Your task to perform on an android device: Open battery settings Image 0: 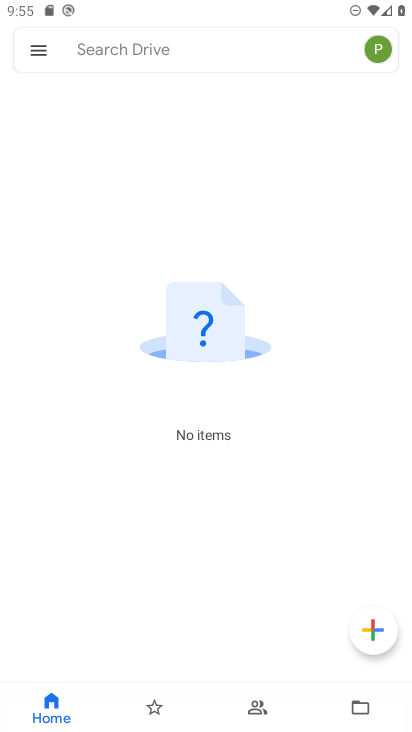
Step 0: press home button
Your task to perform on an android device: Open battery settings Image 1: 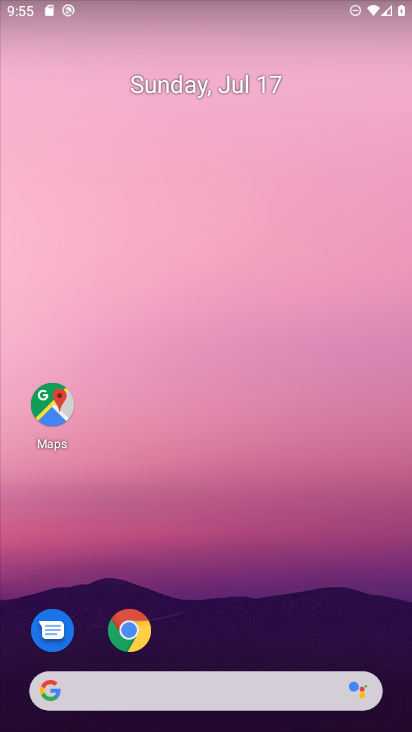
Step 1: drag from (289, 682) to (268, 415)
Your task to perform on an android device: Open battery settings Image 2: 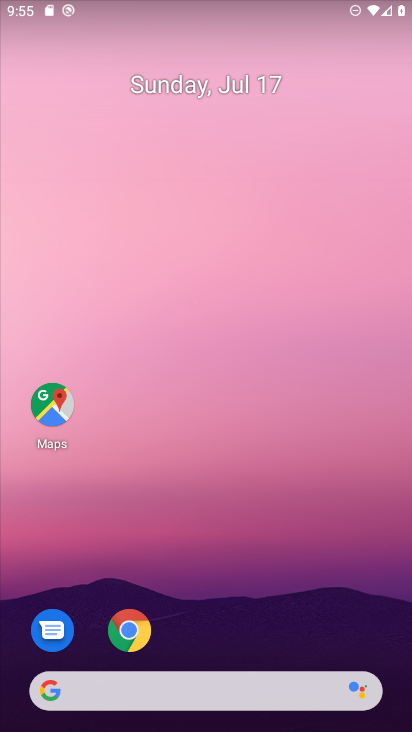
Step 2: drag from (201, 628) to (225, 142)
Your task to perform on an android device: Open battery settings Image 3: 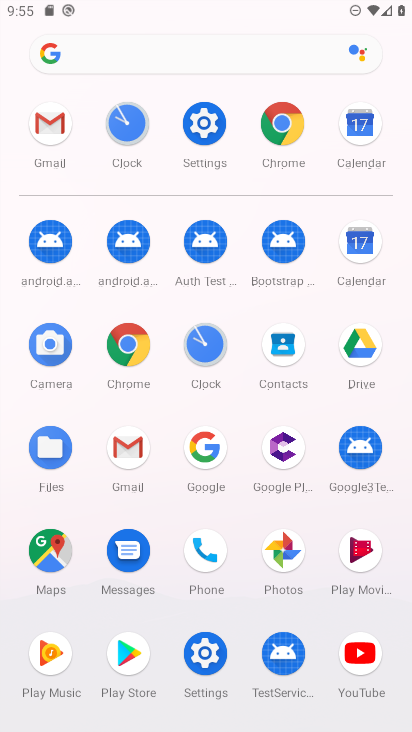
Step 3: click (207, 118)
Your task to perform on an android device: Open battery settings Image 4: 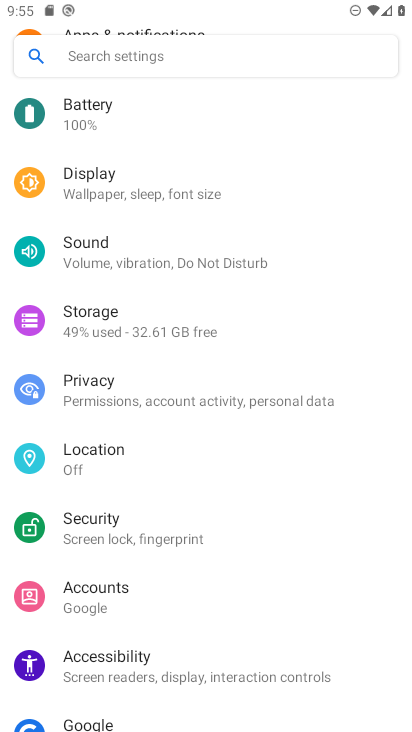
Step 4: click (98, 111)
Your task to perform on an android device: Open battery settings Image 5: 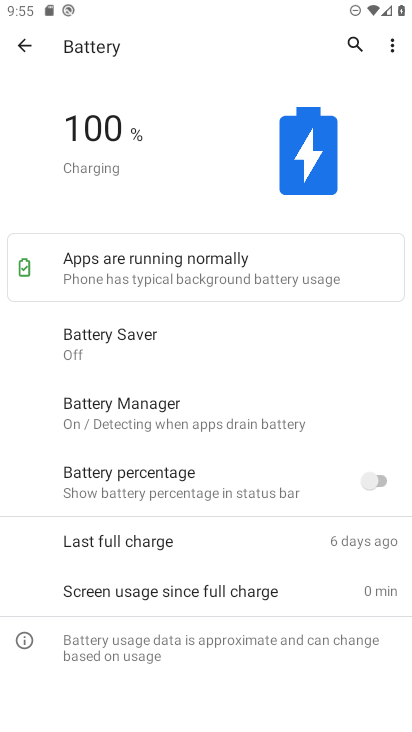
Step 5: task complete